Your task to perform on an android device: Go to Google Image 0: 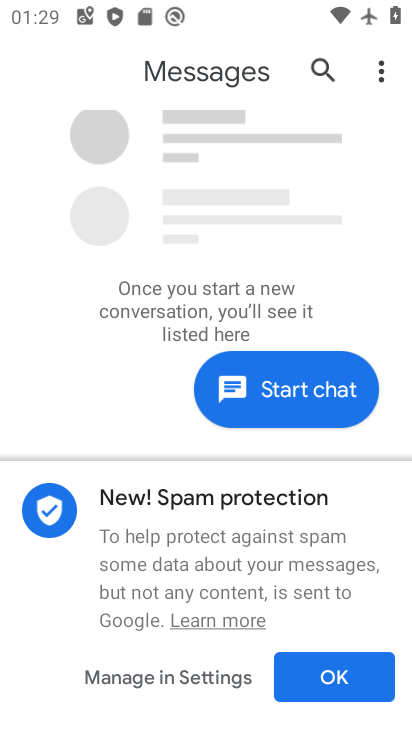
Step 0: press home button
Your task to perform on an android device: Go to Google Image 1: 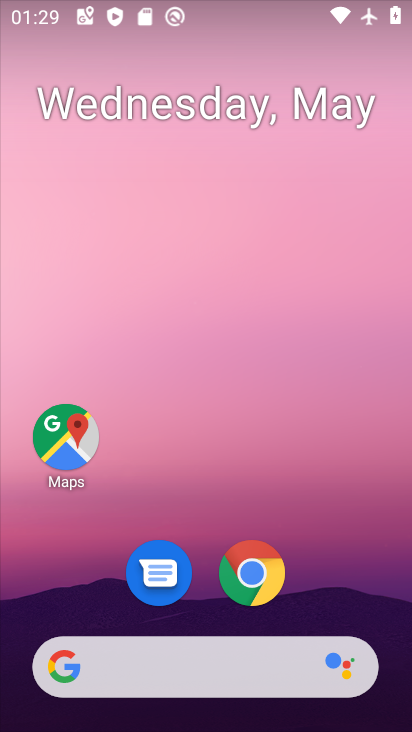
Step 1: drag from (294, 451) to (292, 233)
Your task to perform on an android device: Go to Google Image 2: 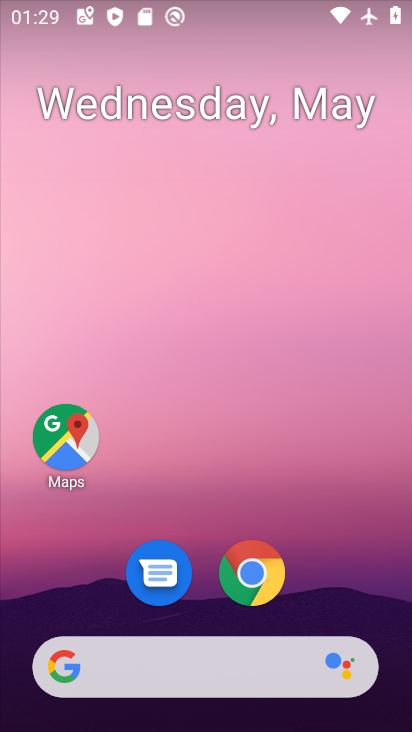
Step 2: drag from (320, 423) to (335, 138)
Your task to perform on an android device: Go to Google Image 3: 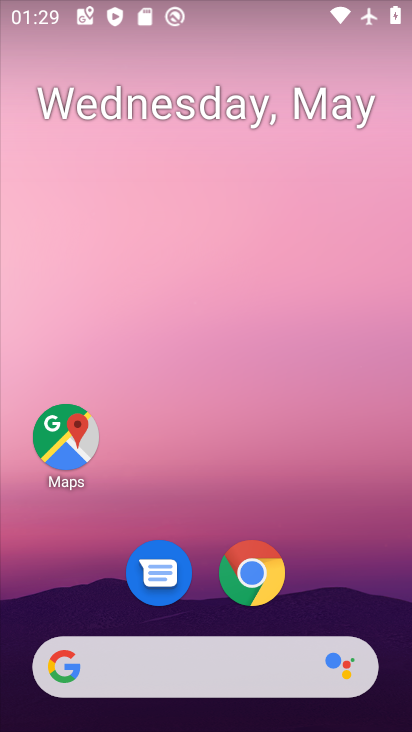
Step 3: drag from (332, 579) to (372, 187)
Your task to perform on an android device: Go to Google Image 4: 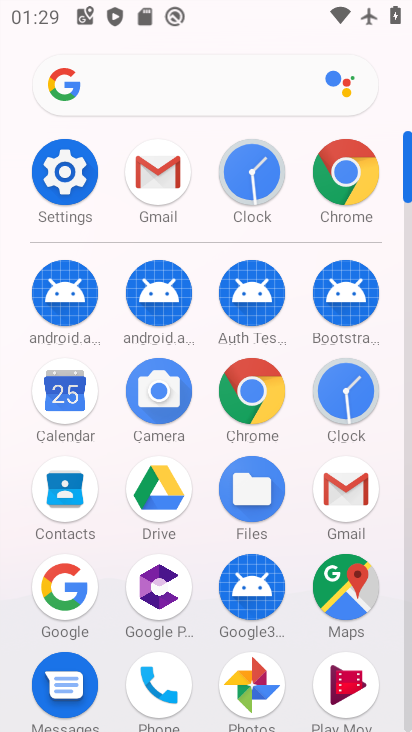
Step 4: click (50, 590)
Your task to perform on an android device: Go to Google Image 5: 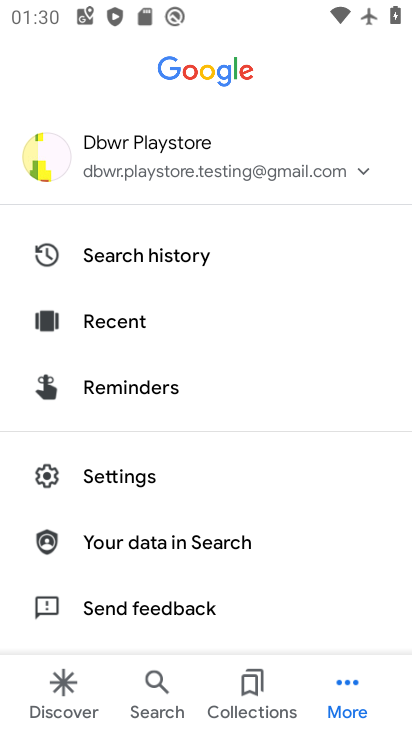
Step 5: task complete